Your task to perform on an android device: Open Google Chrome Image 0: 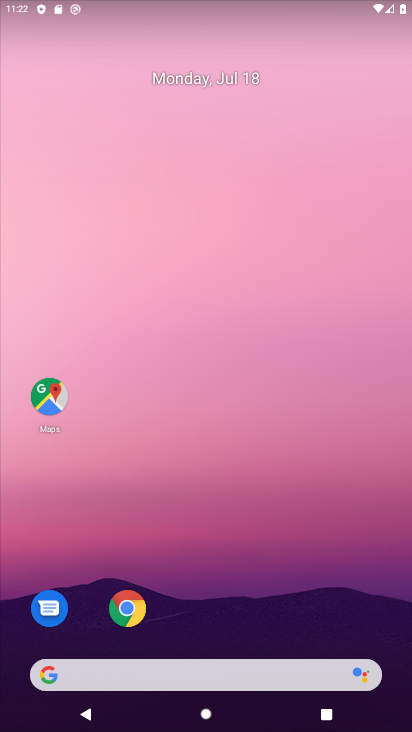
Step 0: click (125, 609)
Your task to perform on an android device: Open Google Chrome Image 1: 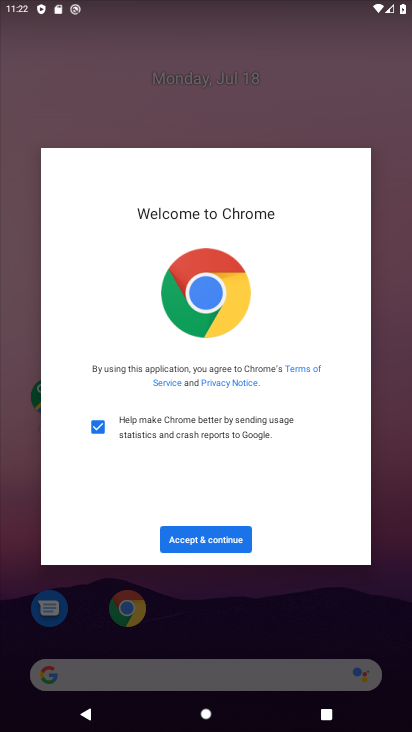
Step 1: click (217, 539)
Your task to perform on an android device: Open Google Chrome Image 2: 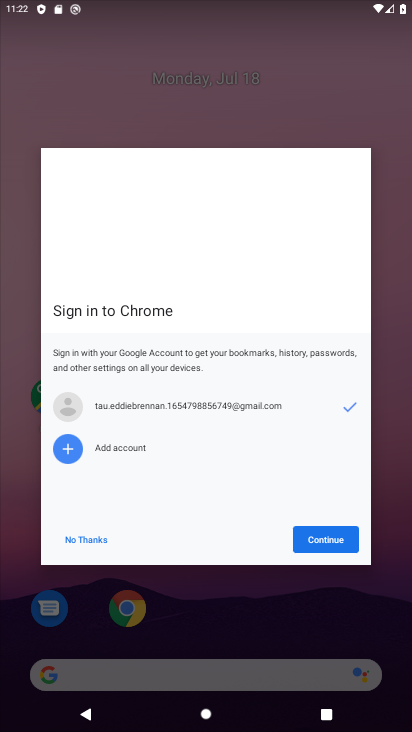
Step 2: click (322, 537)
Your task to perform on an android device: Open Google Chrome Image 3: 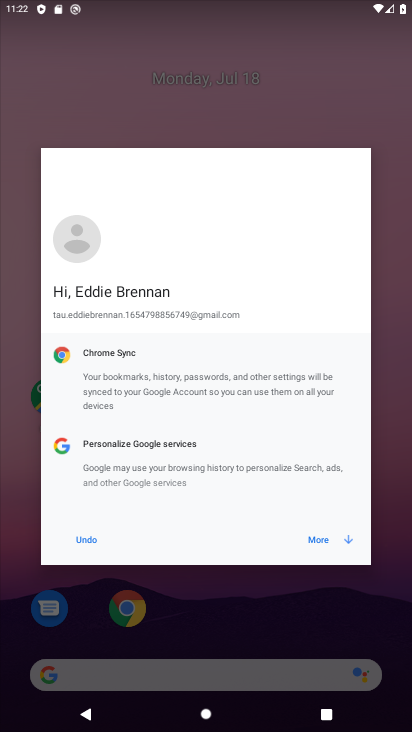
Step 3: click (322, 537)
Your task to perform on an android device: Open Google Chrome Image 4: 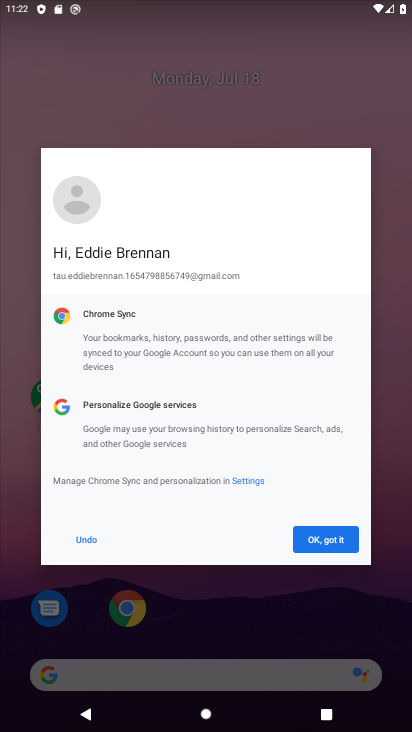
Step 4: click (322, 537)
Your task to perform on an android device: Open Google Chrome Image 5: 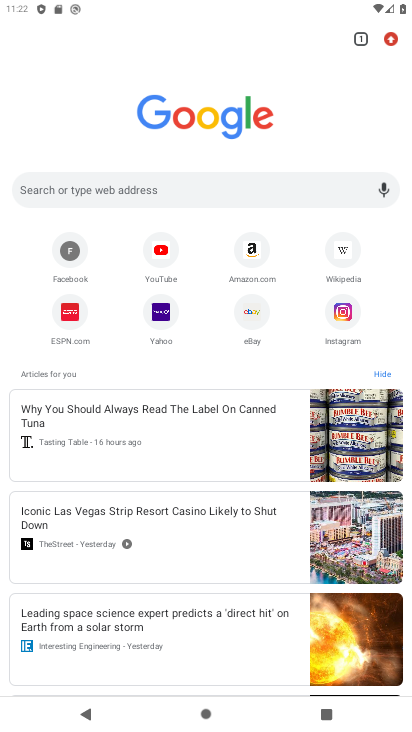
Step 5: press home button
Your task to perform on an android device: Open Google Chrome Image 6: 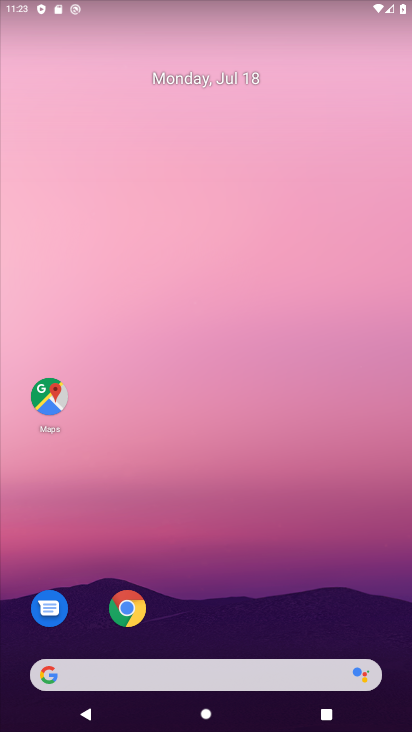
Step 6: click (129, 608)
Your task to perform on an android device: Open Google Chrome Image 7: 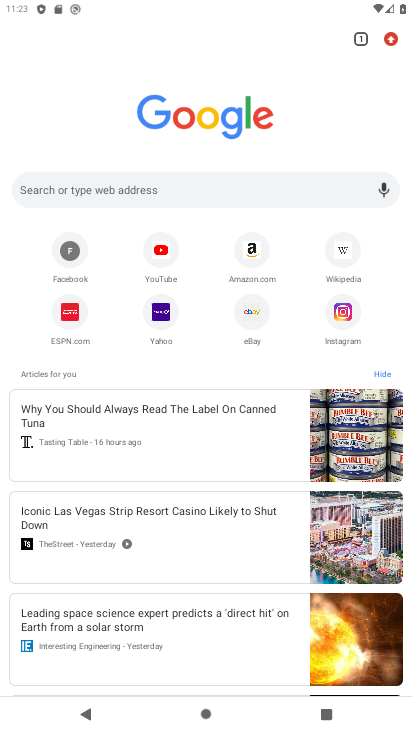
Step 7: task complete